Your task to perform on an android device: What's on my calendar today? Image 0: 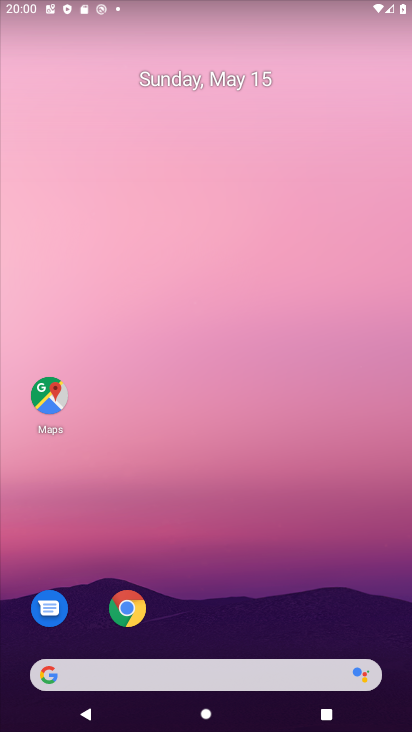
Step 0: drag from (233, 597) to (286, 108)
Your task to perform on an android device: What's on my calendar today? Image 1: 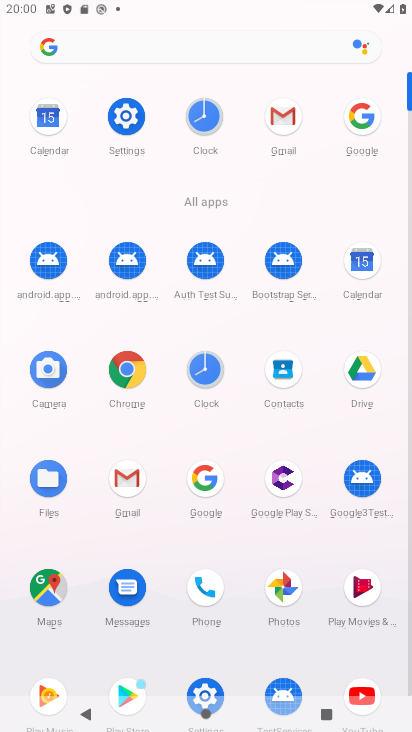
Step 1: click (360, 268)
Your task to perform on an android device: What's on my calendar today? Image 2: 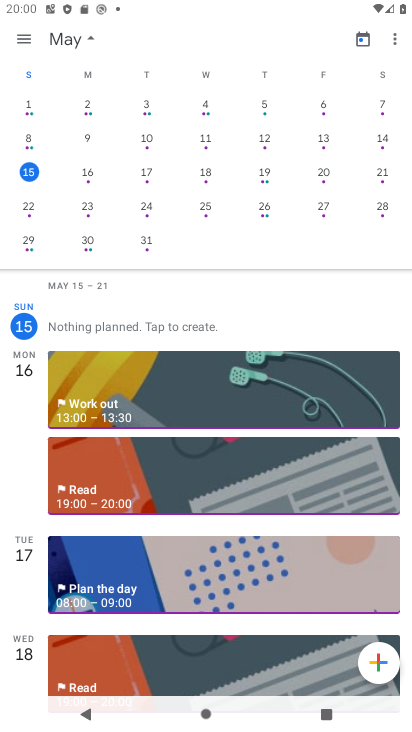
Step 2: click (30, 174)
Your task to perform on an android device: What's on my calendar today? Image 3: 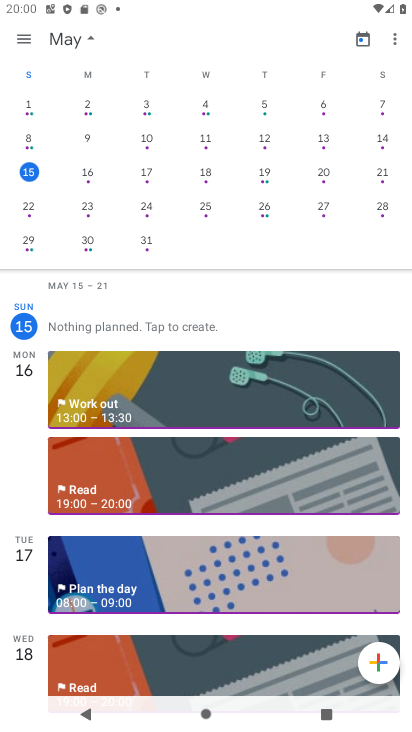
Step 3: task complete